Your task to perform on an android device: read, delete, or share a saved page in the chrome app Image 0: 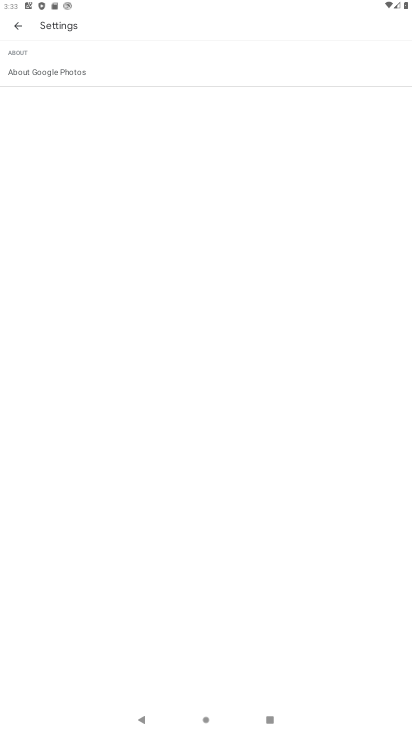
Step 0: press home button
Your task to perform on an android device: read, delete, or share a saved page in the chrome app Image 1: 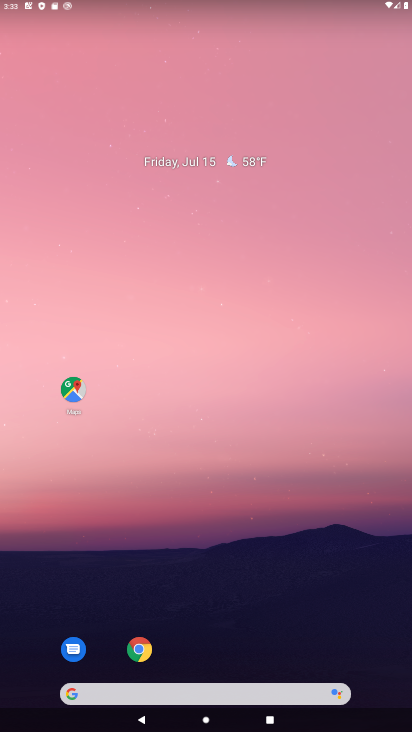
Step 1: drag from (223, 718) to (189, 62)
Your task to perform on an android device: read, delete, or share a saved page in the chrome app Image 2: 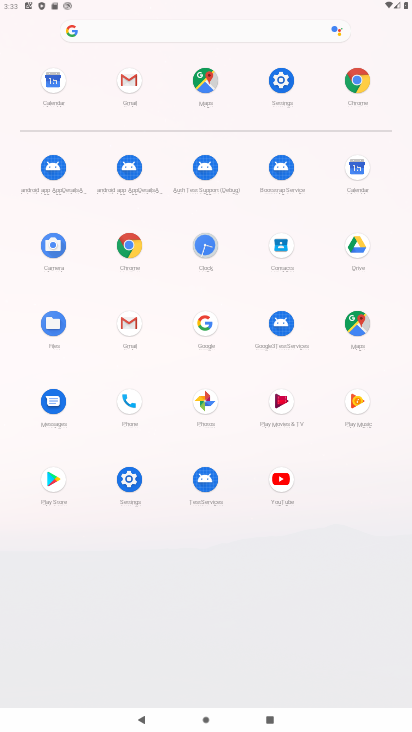
Step 2: click (130, 242)
Your task to perform on an android device: read, delete, or share a saved page in the chrome app Image 3: 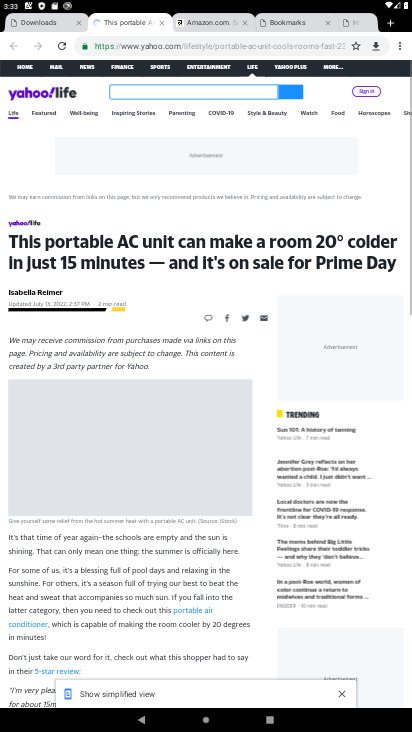
Step 3: click (401, 49)
Your task to perform on an android device: read, delete, or share a saved page in the chrome app Image 4: 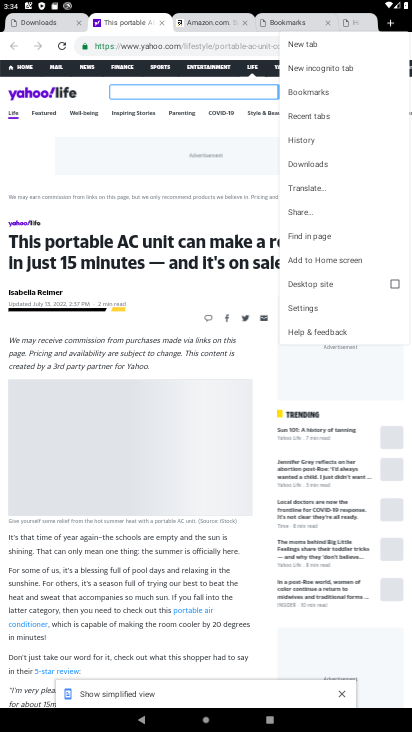
Step 4: click (304, 163)
Your task to perform on an android device: read, delete, or share a saved page in the chrome app Image 5: 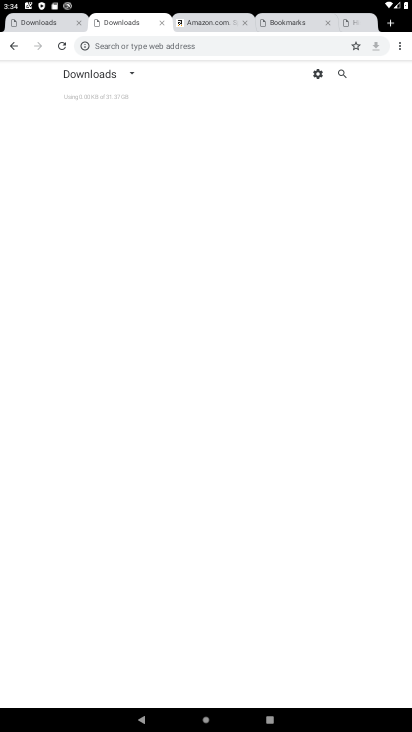
Step 5: task complete